Your task to perform on an android device: Toggle the flashlight Image 0: 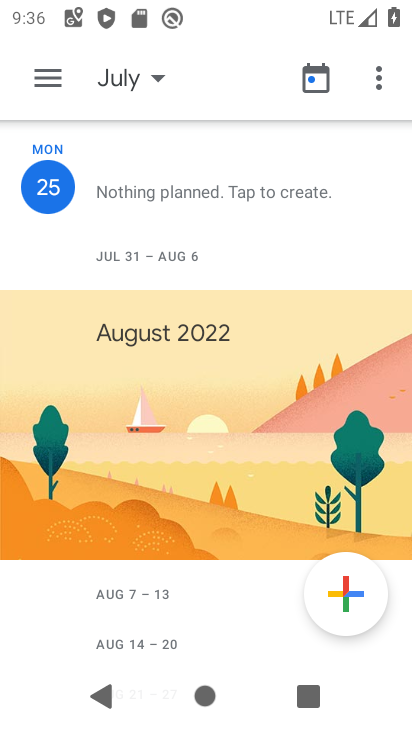
Step 0: press back button
Your task to perform on an android device: Toggle the flashlight Image 1: 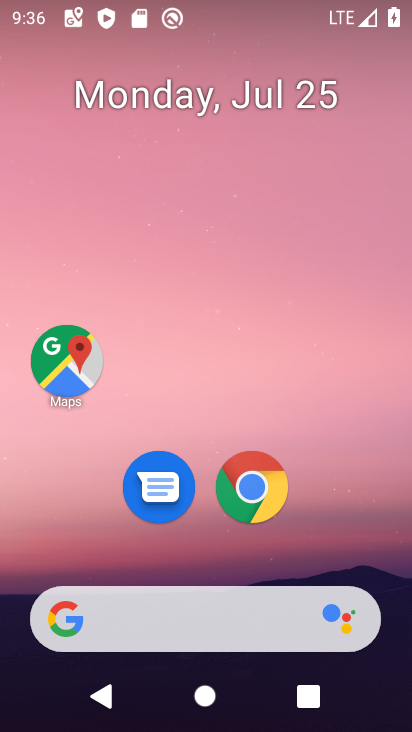
Step 1: drag from (200, 556) to (241, 0)
Your task to perform on an android device: Toggle the flashlight Image 2: 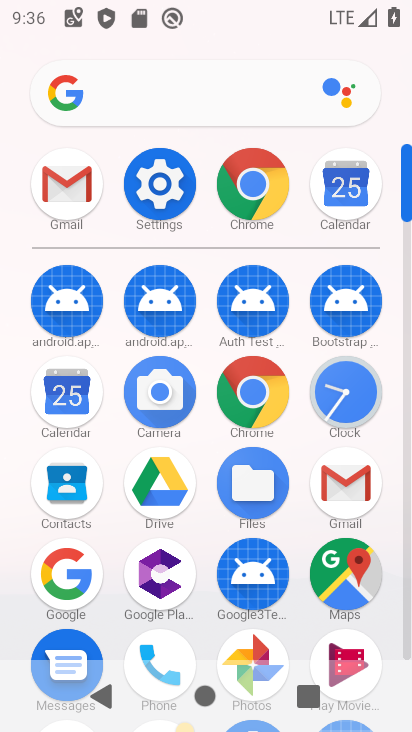
Step 2: click (155, 179)
Your task to perform on an android device: Toggle the flashlight Image 3: 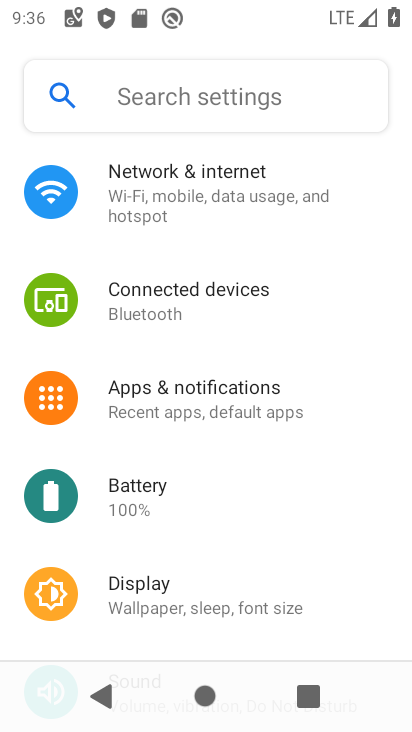
Step 3: click (169, 85)
Your task to perform on an android device: Toggle the flashlight Image 4: 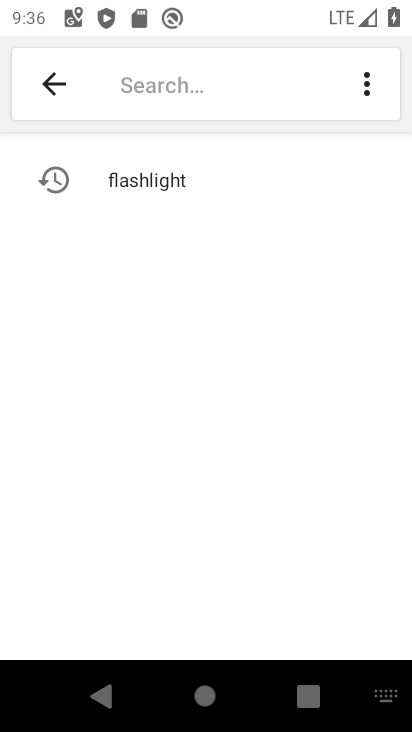
Step 4: type "flashlight"
Your task to perform on an android device: Toggle the flashlight Image 5: 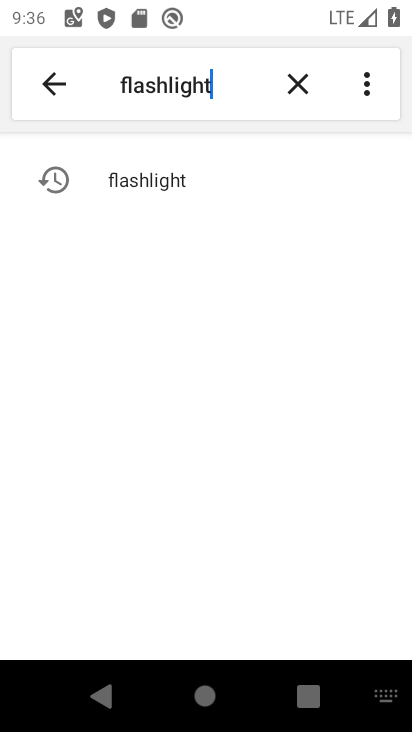
Step 5: click (171, 168)
Your task to perform on an android device: Toggle the flashlight Image 6: 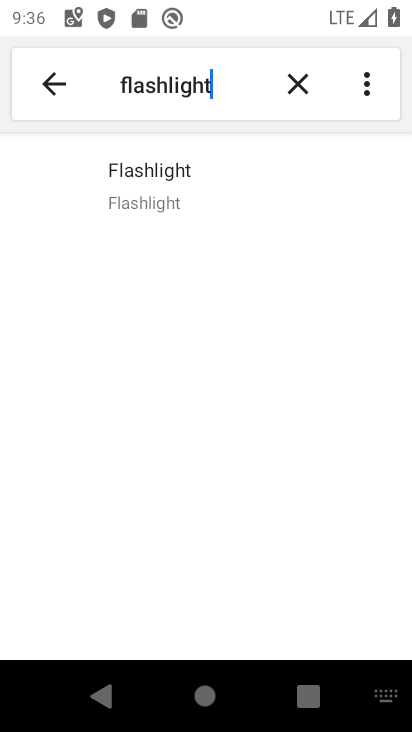
Step 6: click (221, 197)
Your task to perform on an android device: Toggle the flashlight Image 7: 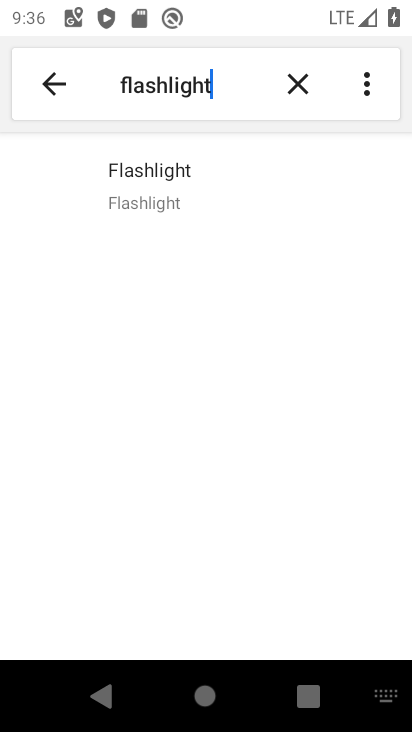
Step 7: task complete